Your task to perform on an android device: add a contact Image 0: 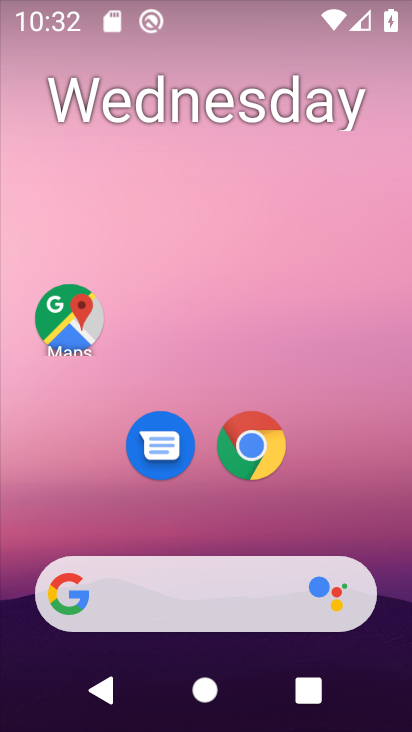
Step 0: drag from (361, 492) to (350, 33)
Your task to perform on an android device: add a contact Image 1: 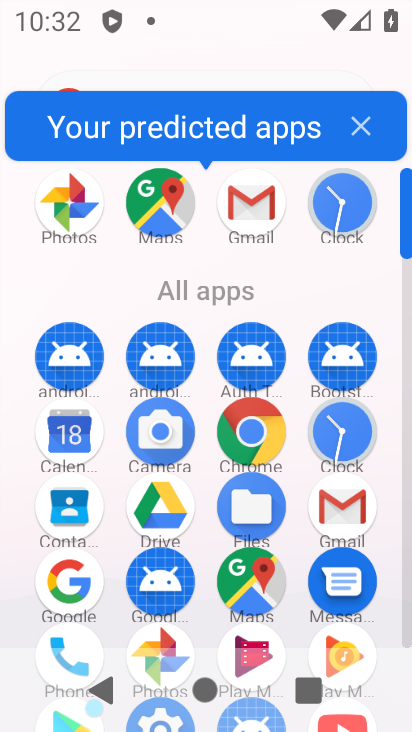
Step 1: click (79, 532)
Your task to perform on an android device: add a contact Image 2: 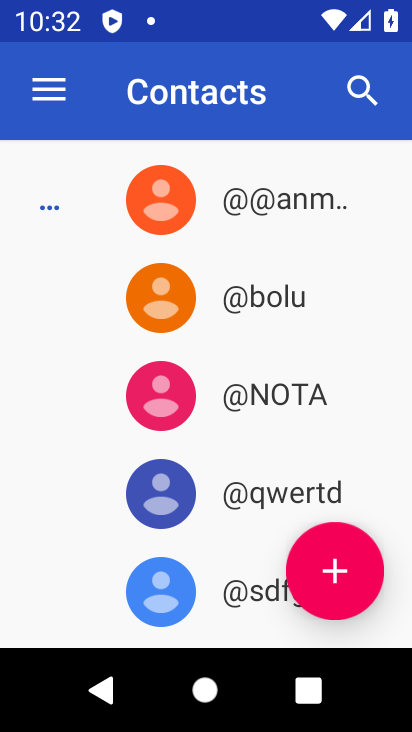
Step 2: click (338, 579)
Your task to perform on an android device: add a contact Image 3: 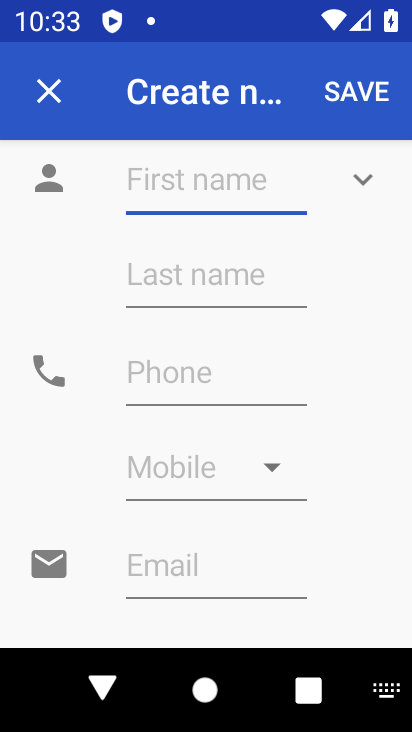
Step 3: type "chiku"
Your task to perform on an android device: add a contact Image 4: 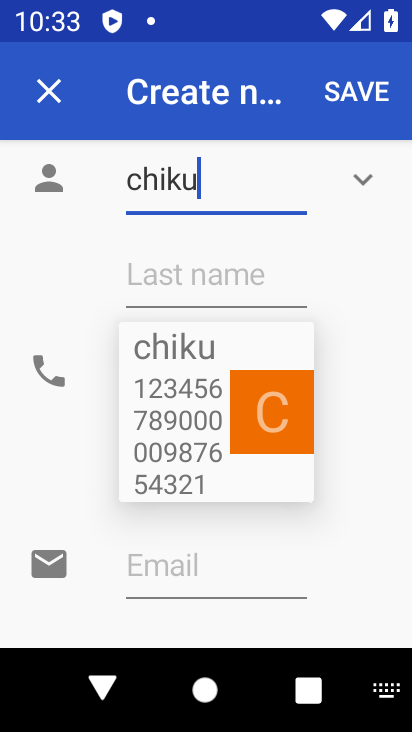
Step 4: type "12"
Your task to perform on an android device: add a contact Image 5: 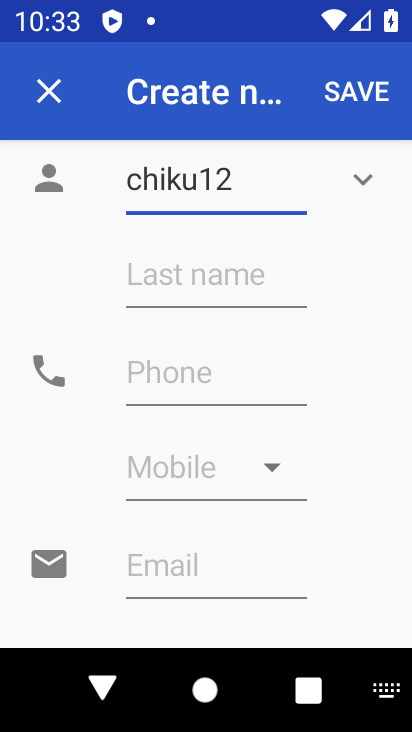
Step 5: click (174, 361)
Your task to perform on an android device: add a contact Image 6: 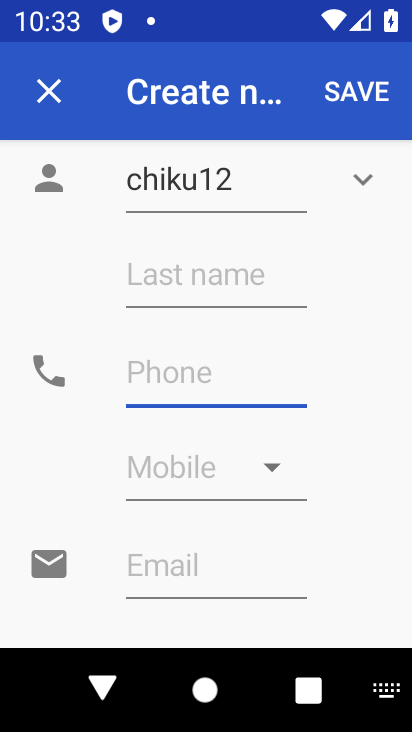
Step 6: type "9897878767"
Your task to perform on an android device: add a contact Image 7: 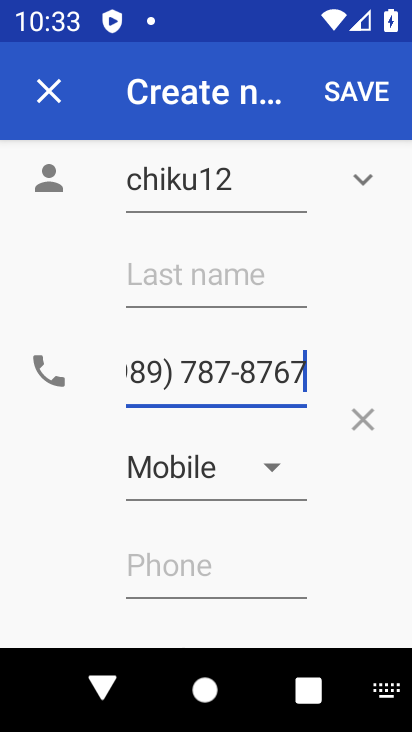
Step 7: click (366, 99)
Your task to perform on an android device: add a contact Image 8: 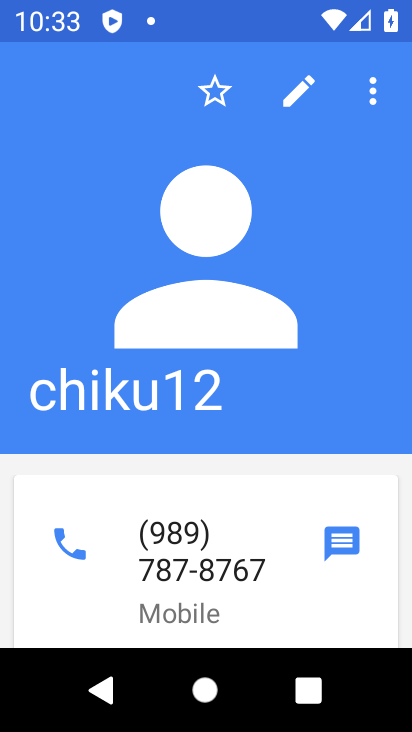
Step 8: task complete